Your task to perform on an android device: Go to Android settings Image 0: 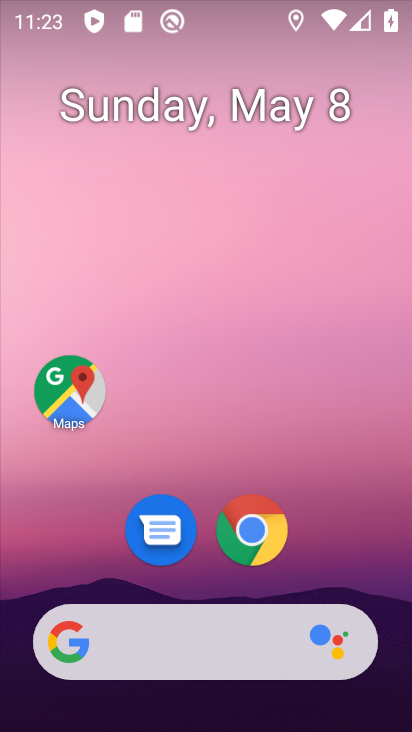
Step 0: drag from (296, 610) to (319, 14)
Your task to perform on an android device: Go to Android settings Image 1: 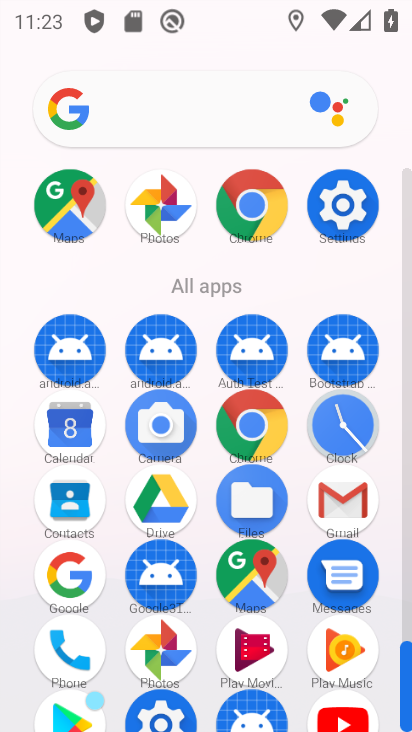
Step 1: drag from (293, 643) to (297, 252)
Your task to perform on an android device: Go to Android settings Image 2: 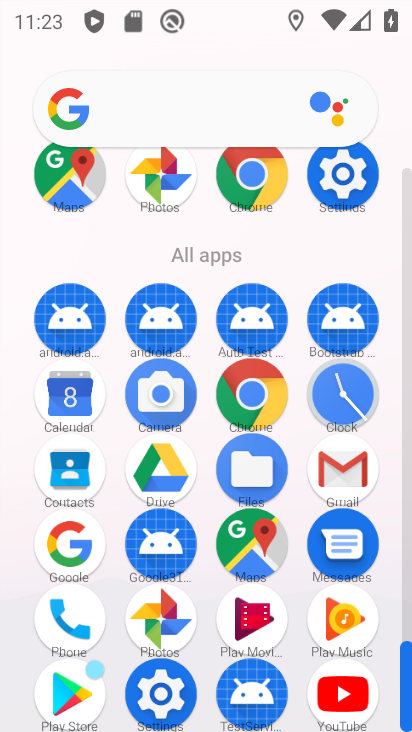
Step 2: click (167, 699)
Your task to perform on an android device: Go to Android settings Image 3: 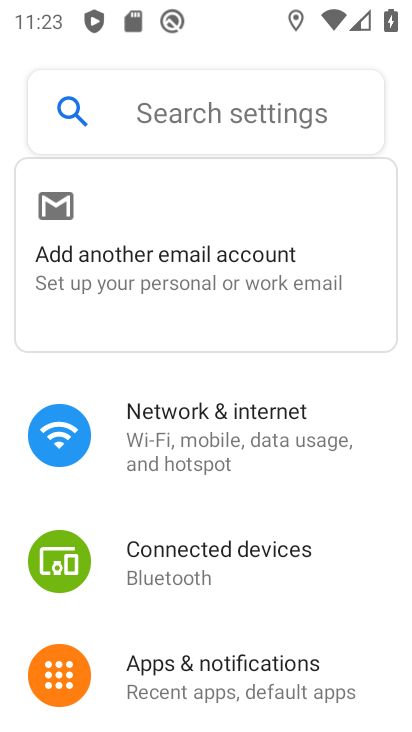
Step 3: drag from (256, 699) to (278, 167)
Your task to perform on an android device: Go to Android settings Image 4: 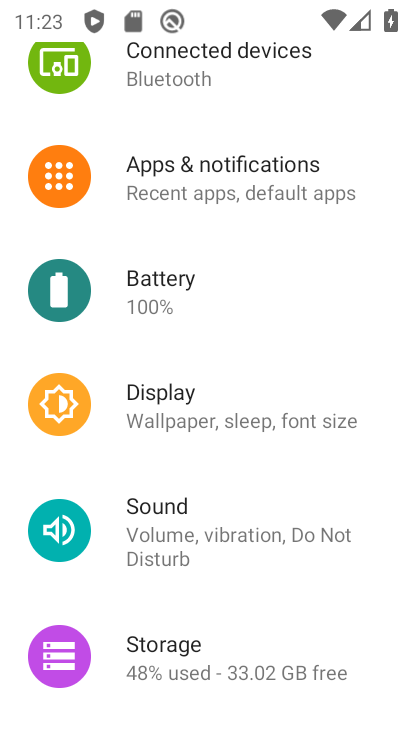
Step 4: drag from (301, 379) to (373, 11)
Your task to perform on an android device: Go to Android settings Image 5: 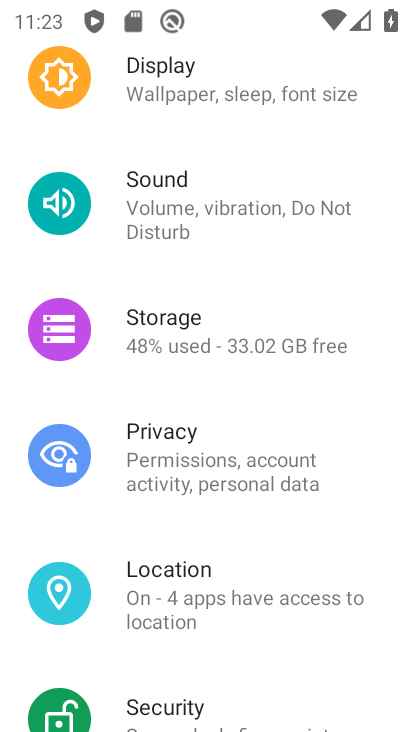
Step 5: drag from (252, 718) to (280, 122)
Your task to perform on an android device: Go to Android settings Image 6: 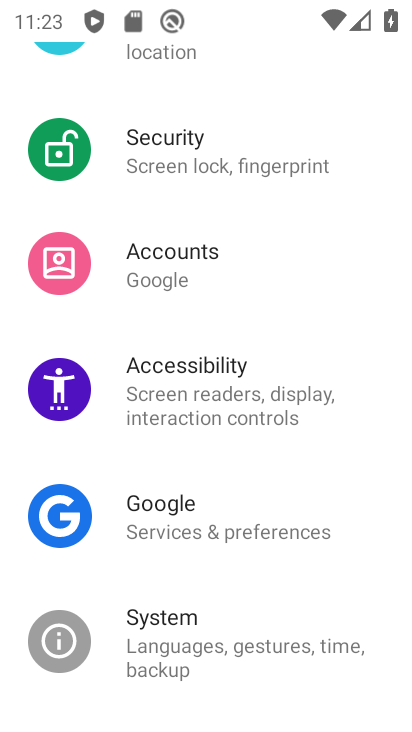
Step 6: drag from (221, 672) to (234, 192)
Your task to perform on an android device: Go to Android settings Image 7: 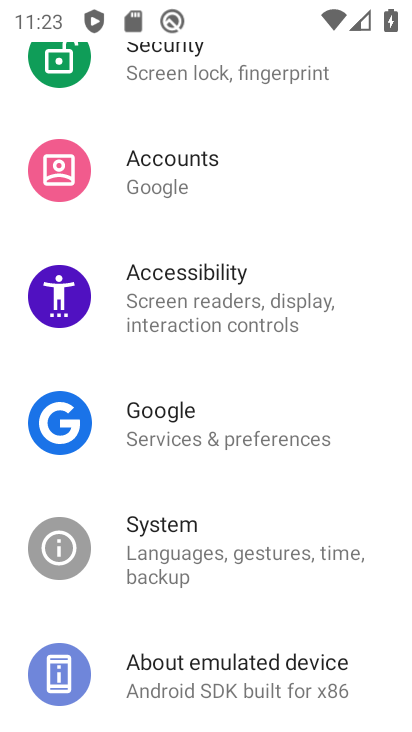
Step 7: click (182, 693)
Your task to perform on an android device: Go to Android settings Image 8: 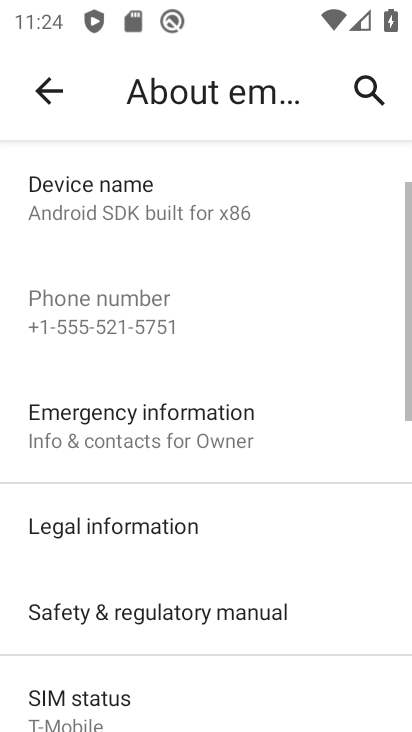
Step 8: drag from (181, 691) to (196, 258)
Your task to perform on an android device: Go to Android settings Image 9: 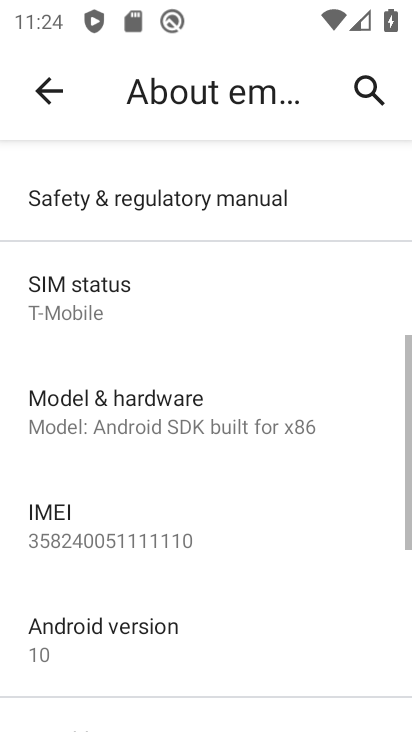
Step 9: click (140, 639)
Your task to perform on an android device: Go to Android settings Image 10: 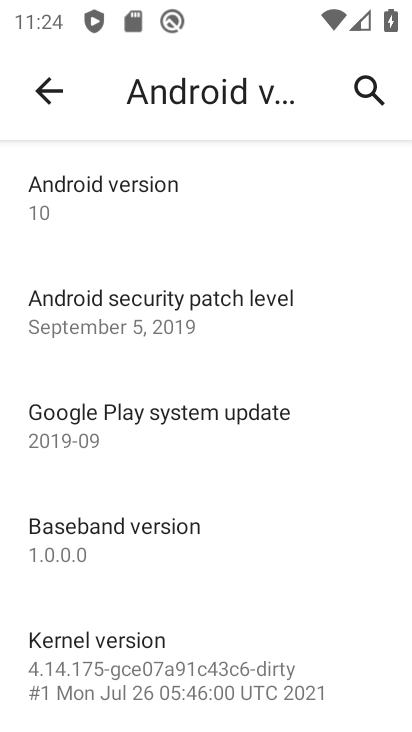
Step 10: task complete